Your task to perform on an android device: Open the map Image 0: 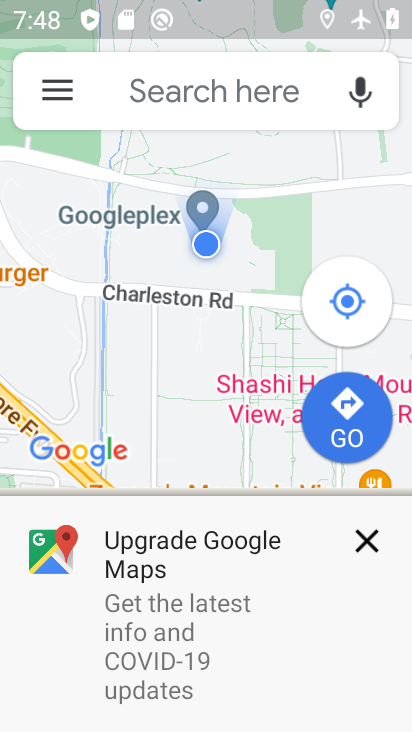
Step 0: task complete